Your task to perform on an android device: Open the stopwatch Image 0: 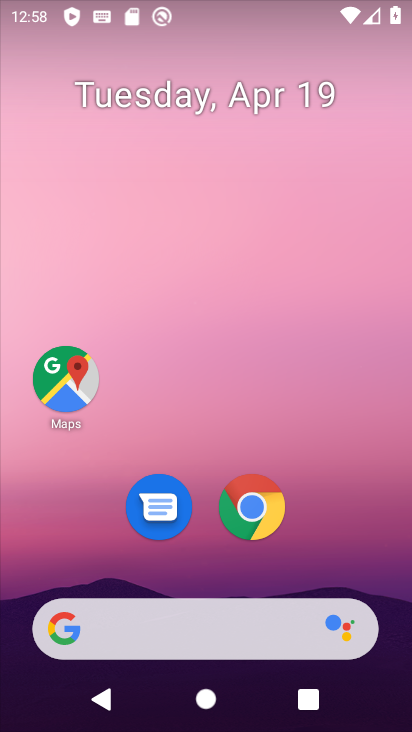
Step 0: drag from (214, 529) to (228, 82)
Your task to perform on an android device: Open the stopwatch Image 1: 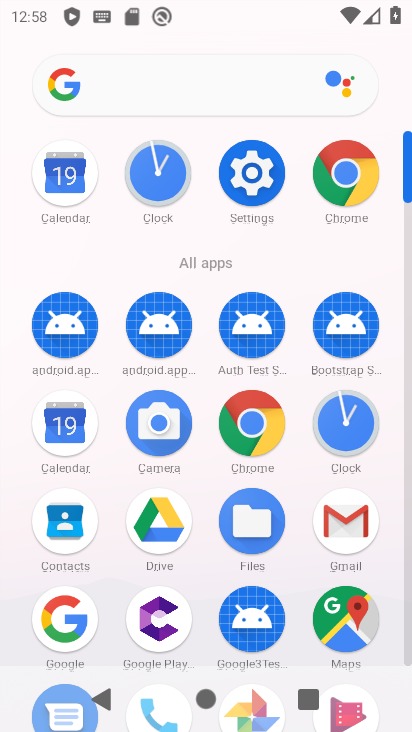
Step 1: click (344, 413)
Your task to perform on an android device: Open the stopwatch Image 2: 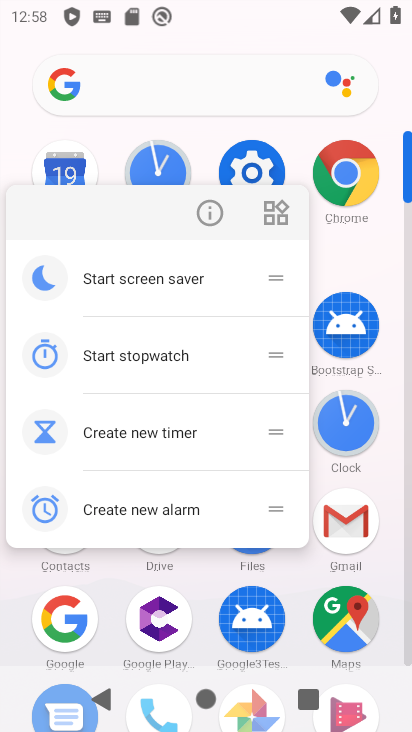
Step 2: click (346, 423)
Your task to perform on an android device: Open the stopwatch Image 3: 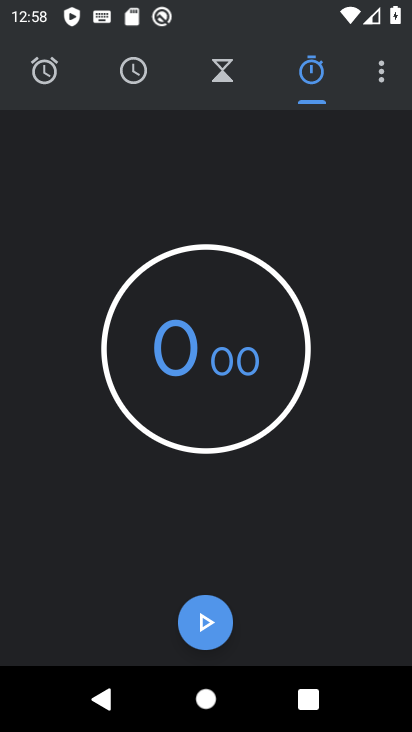
Step 3: click (196, 621)
Your task to perform on an android device: Open the stopwatch Image 4: 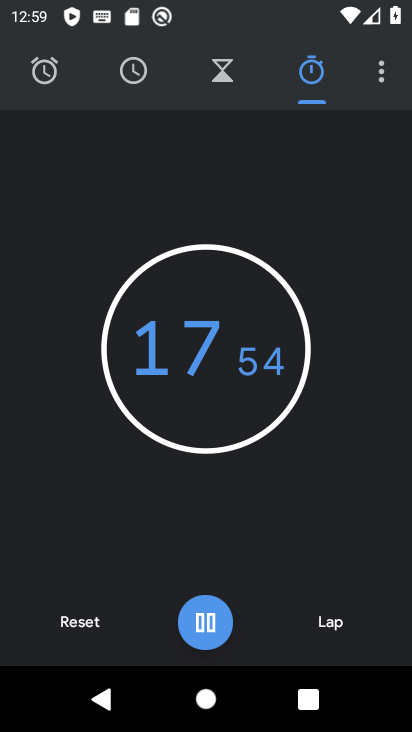
Step 4: click (202, 619)
Your task to perform on an android device: Open the stopwatch Image 5: 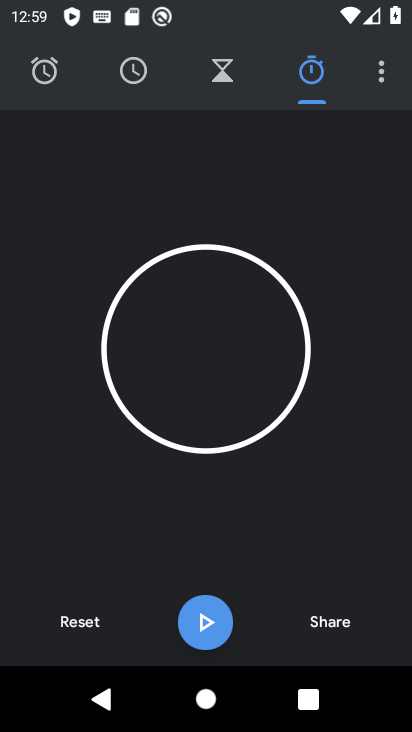
Step 5: task complete